Your task to perform on an android device: install app "PUBG MOBILE" Image 0: 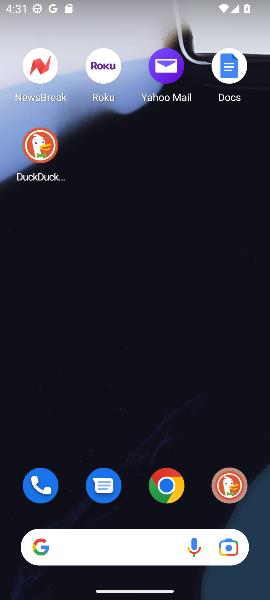
Step 0: drag from (107, 501) to (187, 70)
Your task to perform on an android device: install app "PUBG MOBILE" Image 1: 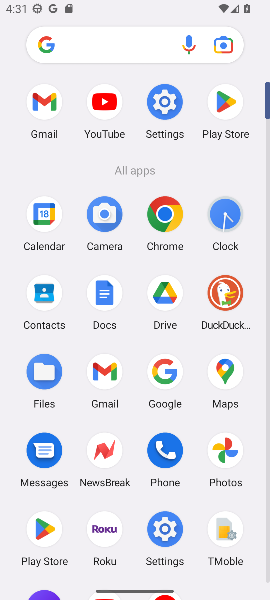
Step 1: click (231, 95)
Your task to perform on an android device: install app "PUBG MOBILE" Image 2: 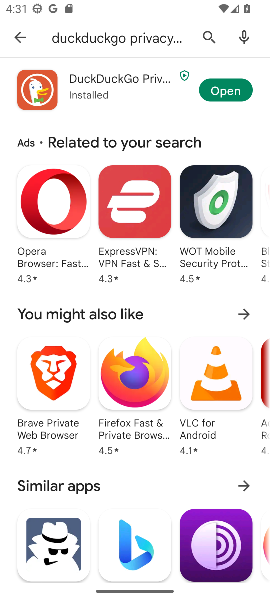
Step 2: click (207, 33)
Your task to perform on an android device: install app "PUBG MOBILE" Image 3: 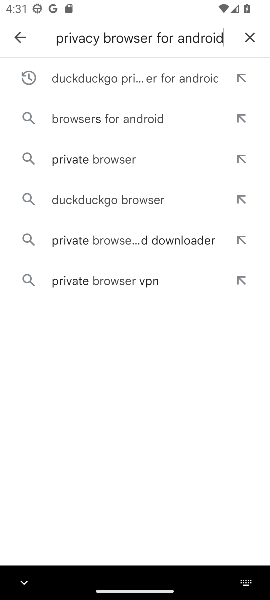
Step 3: click (243, 35)
Your task to perform on an android device: install app "PUBG MOBILE" Image 4: 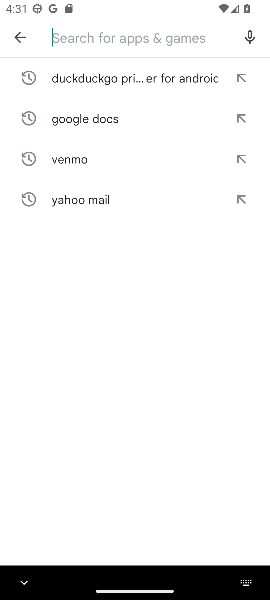
Step 4: click (153, 41)
Your task to perform on an android device: install app "PUBG MOBILE" Image 5: 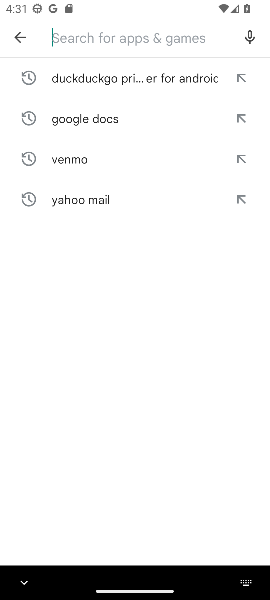
Step 5: type "pubg mobile"
Your task to perform on an android device: install app "PUBG MOBILE" Image 6: 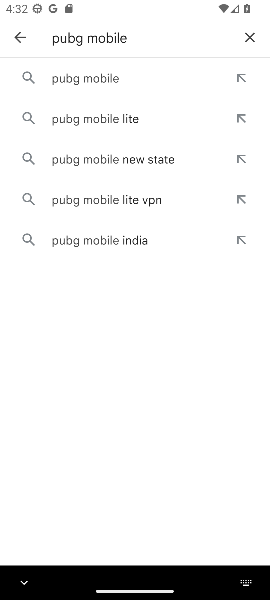
Step 6: click (122, 73)
Your task to perform on an android device: install app "PUBG MOBILE" Image 7: 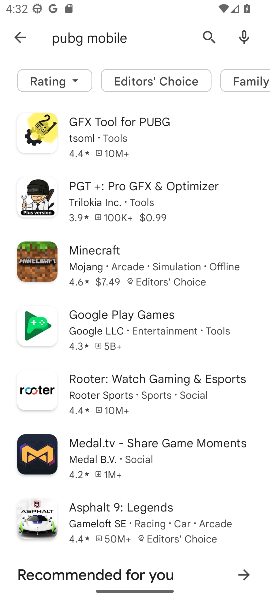
Step 7: task complete